Your task to perform on an android device: Open Reddit.com Image 0: 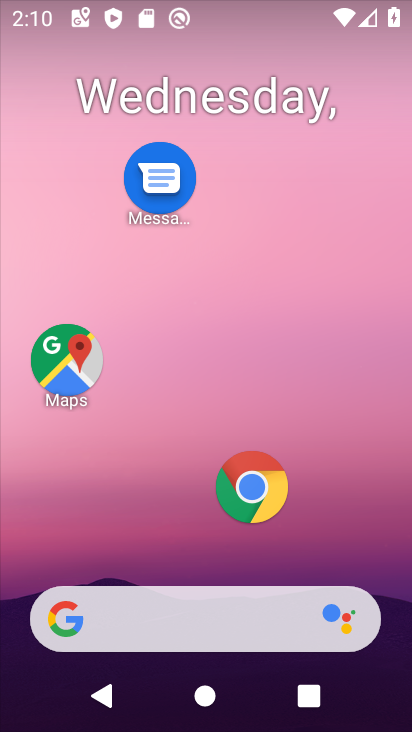
Step 0: click (182, 604)
Your task to perform on an android device: Open Reddit.com Image 1: 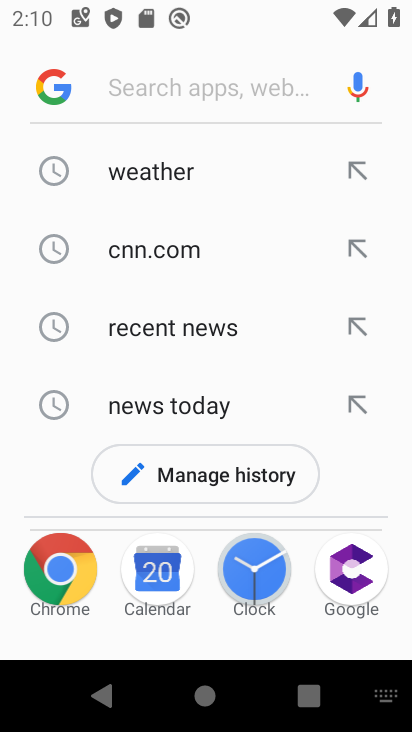
Step 1: type "Reddit.com"
Your task to perform on an android device: Open Reddit.com Image 2: 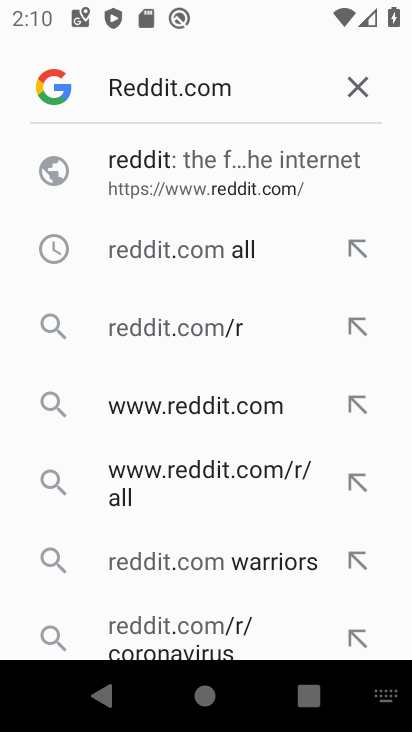
Step 2: drag from (223, 458) to (259, 220)
Your task to perform on an android device: Open Reddit.com Image 3: 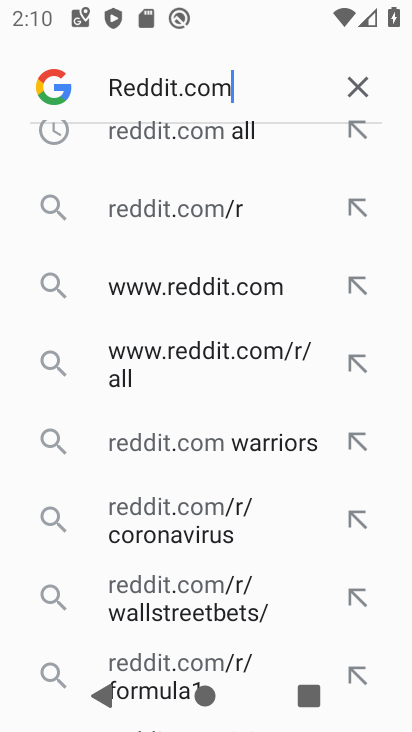
Step 3: drag from (257, 596) to (249, 366)
Your task to perform on an android device: Open Reddit.com Image 4: 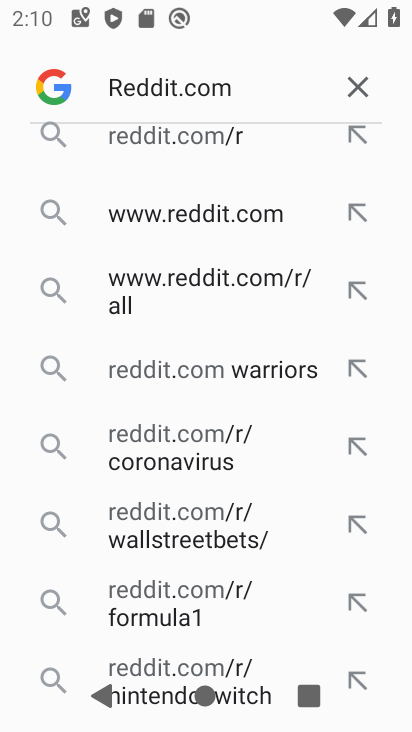
Step 4: click (242, 205)
Your task to perform on an android device: Open Reddit.com Image 5: 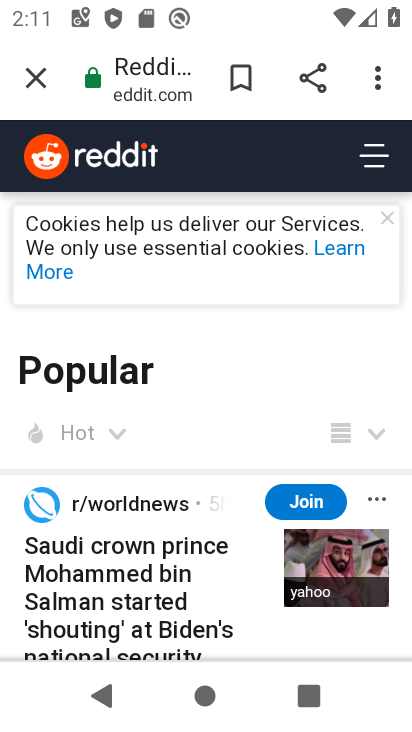
Step 5: task complete